Your task to perform on an android device: star an email in the gmail app Image 0: 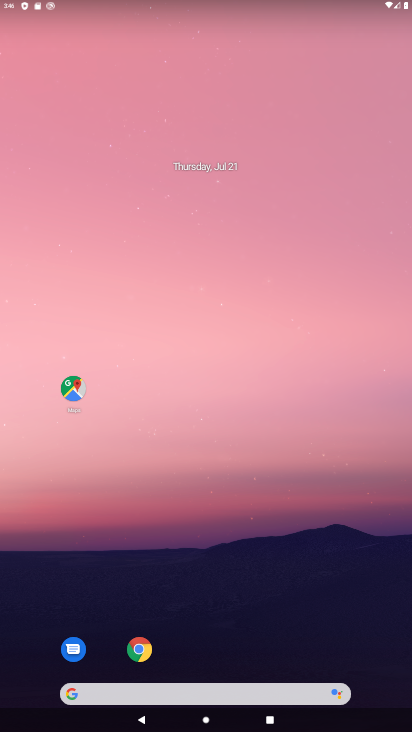
Step 0: drag from (192, 663) to (166, 447)
Your task to perform on an android device: star an email in the gmail app Image 1: 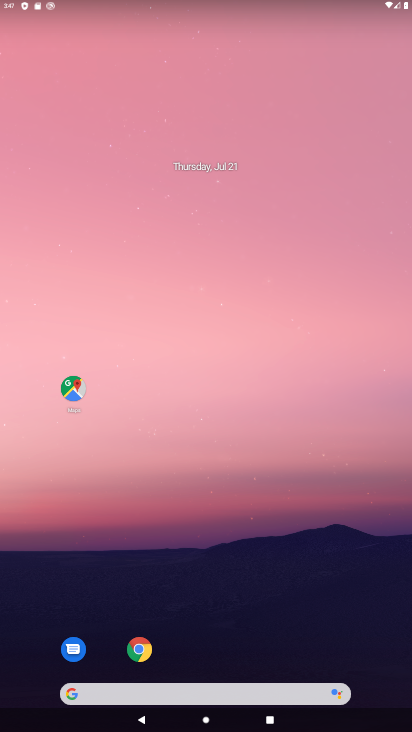
Step 1: drag from (201, 608) to (118, 225)
Your task to perform on an android device: star an email in the gmail app Image 2: 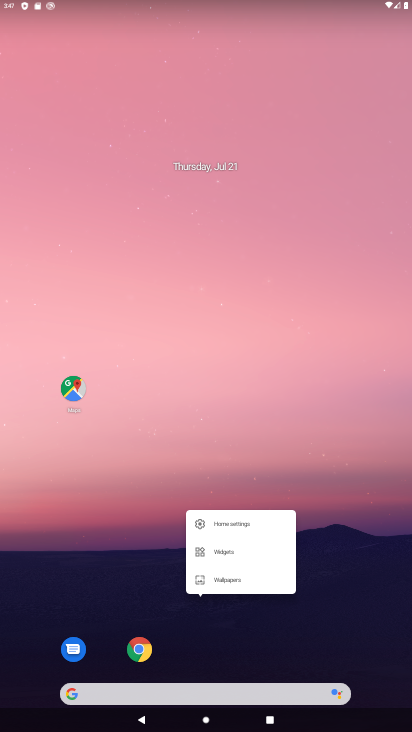
Step 2: click (294, 636)
Your task to perform on an android device: star an email in the gmail app Image 3: 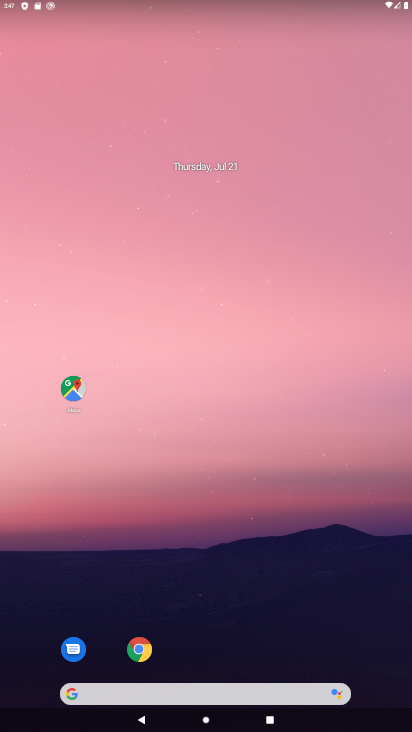
Step 3: drag from (294, 636) to (228, 218)
Your task to perform on an android device: star an email in the gmail app Image 4: 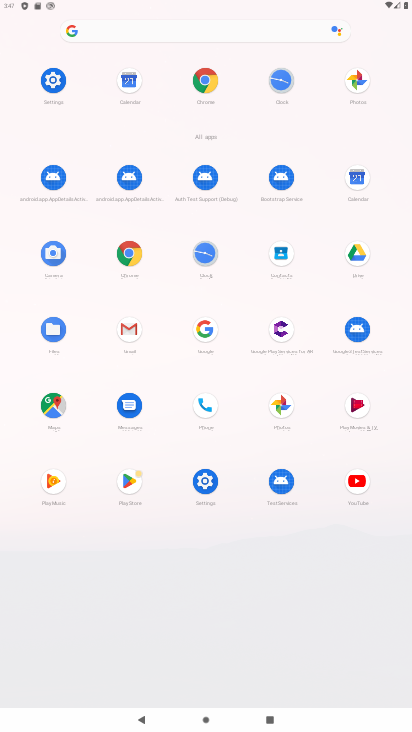
Step 4: click (136, 327)
Your task to perform on an android device: star an email in the gmail app Image 5: 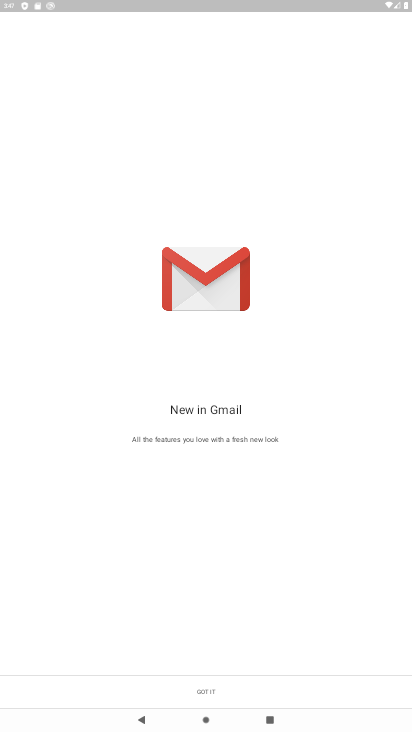
Step 5: click (204, 687)
Your task to perform on an android device: star an email in the gmail app Image 6: 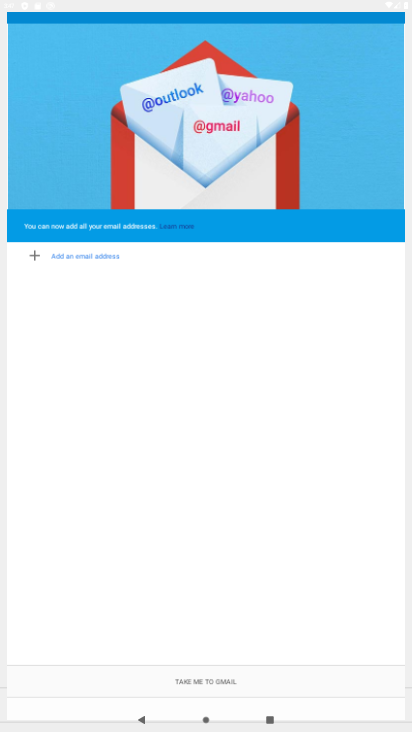
Step 6: click (204, 687)
Your task to perform on an android device: star an email in the gmail app Image 7: 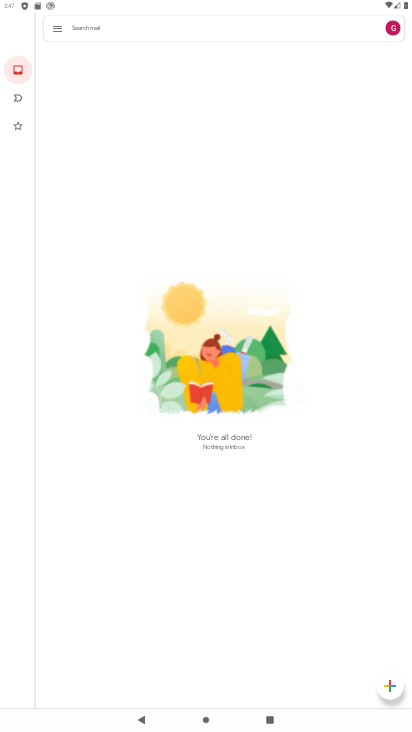
Step 7: click (56, 31)
Your task to perform on an android device: star an email in the gmail app Image 8: 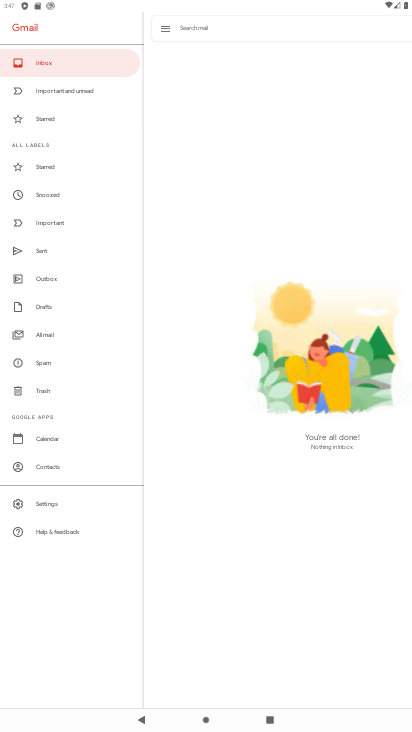
Step 8: click (155, 24)
Your task to perform on an android device: star an email in the gmail app Image 9: 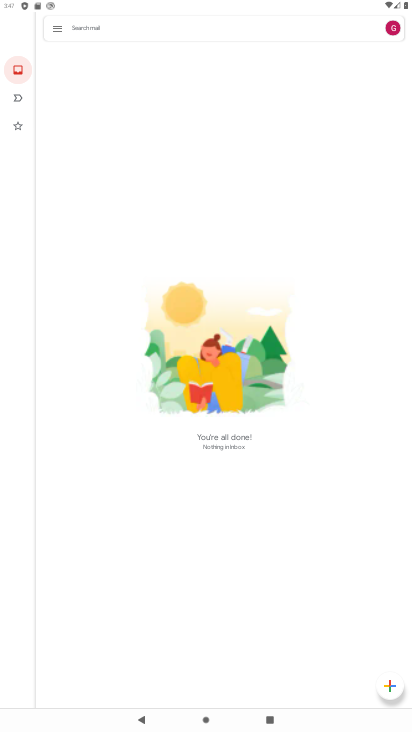
Step 9: task complete